Your task to perform on an android device: Open maps Image 0: 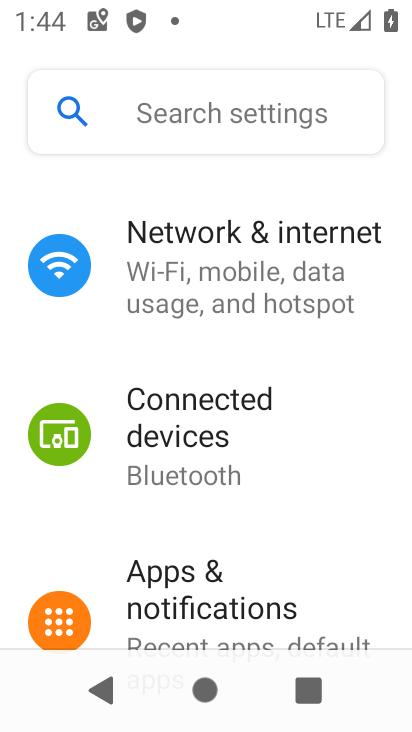
Step 0: press home button
Your task to perform on an android device: Open maps Image 1: 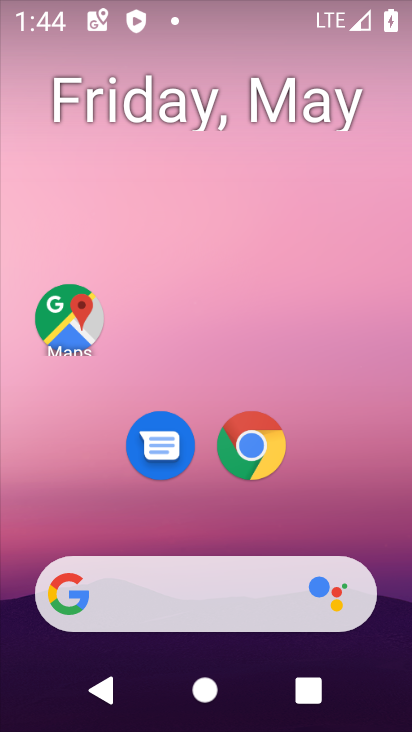
Step 1: click (70, 308)
Your task to perform on an android device: Open maps Image 2: 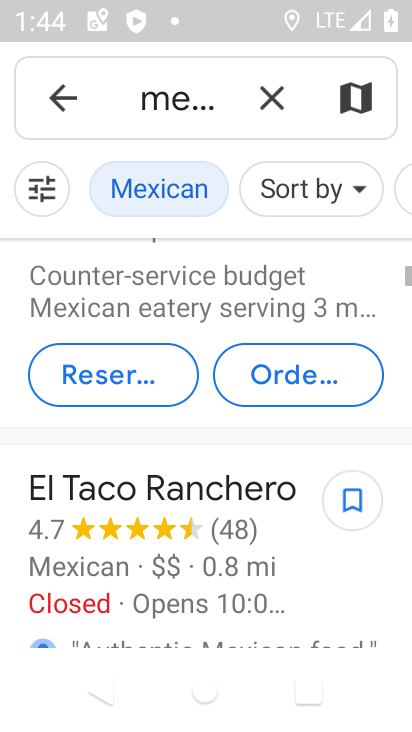
Step 2: click (272, 104)
Your task to perform on an android device: Open maps Image 3: 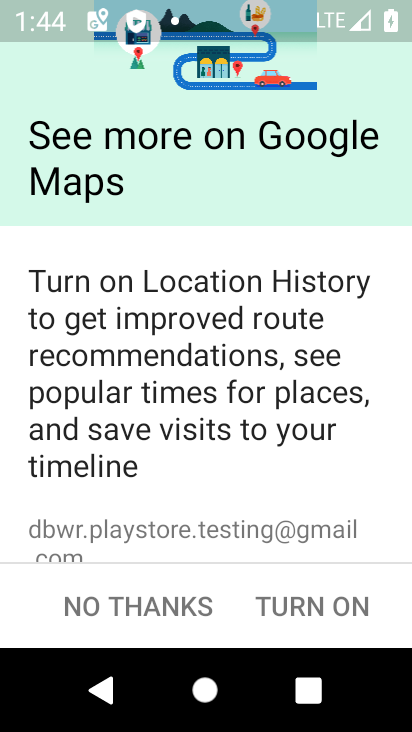
Step 3: click (318, 606)
Your task to perform on an android device: Open maps Image 4: 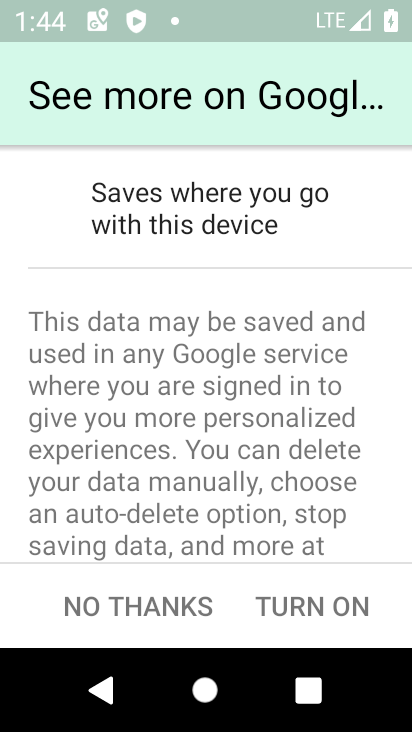
Step 4: click (318, 603)
Your task to perform on an android device: Open maps Image 5: 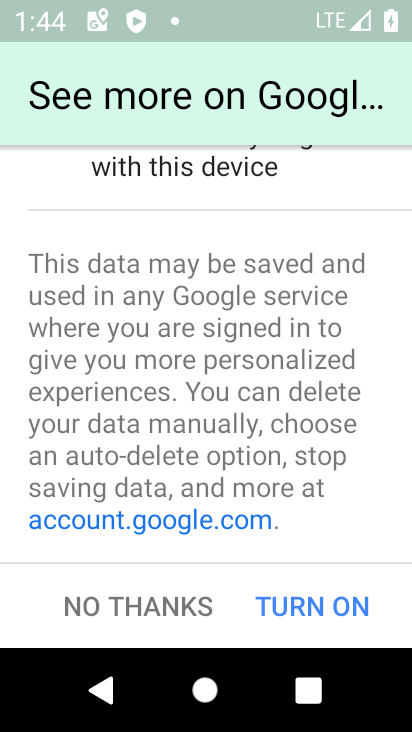
Step 5: click (318, 603)
Your task to perform on an android device: Open maps Image 6: 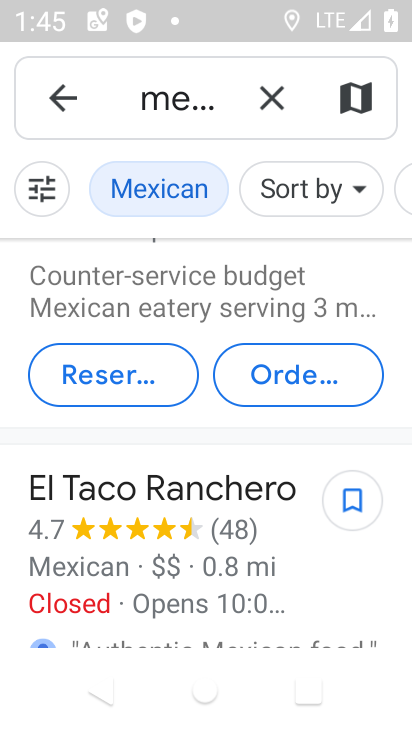
Step 6: click (275, 103)
Your task to perform on an android device: Open maps Image 7: 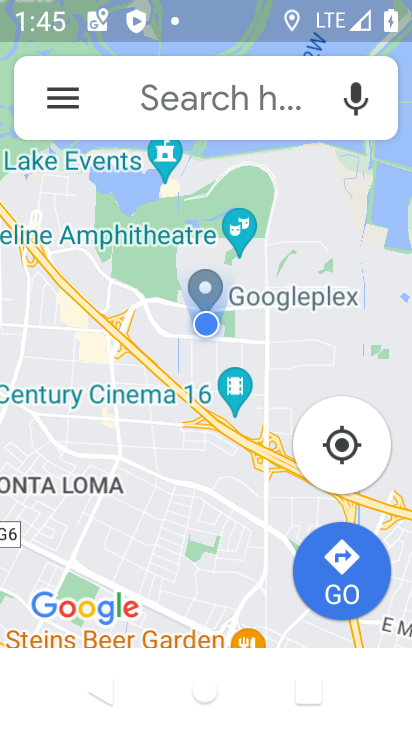
Step 7: task complete